Your task to perform on an android device: turn on bluetooth scan Image 0: 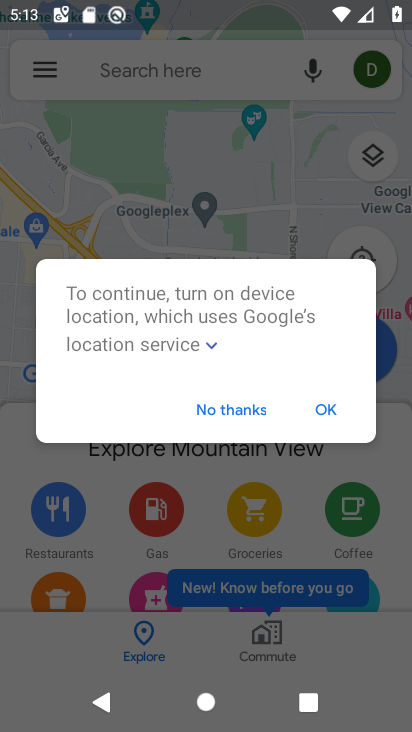
Step 0: press home button
Your task to perform on an android device: turn on bluetooth scan Image 1: 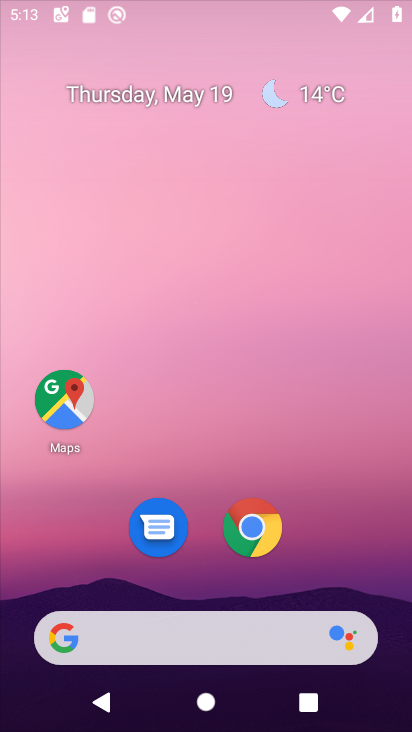
Step 1: drag from (312, 431) to (278, 54)
Your task to perform on an android device: turn on bluetooth scan Image 2: 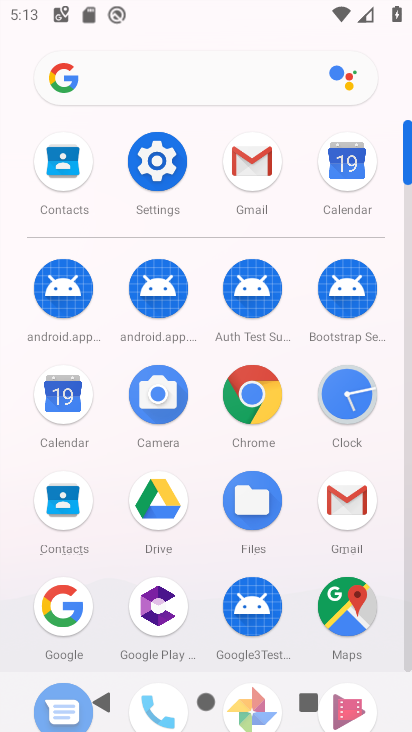
Step 2: click (159, 153)
Your task to perform on an android device: turn on bluetooth scan Image 3: 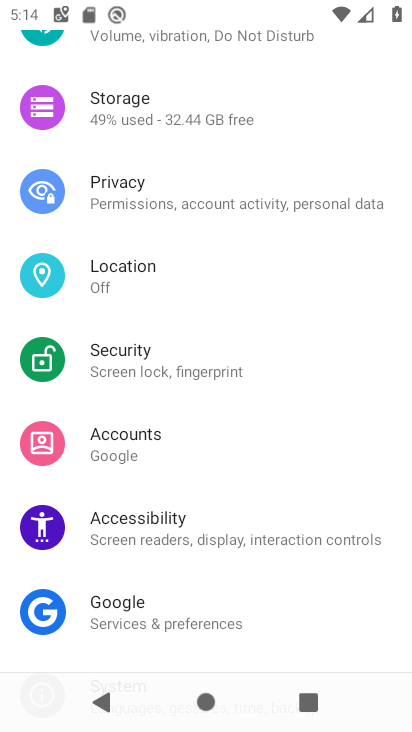
Step 3: drag from (236, 150) to (188, 573)
Your task to perform on an android device: turn on bluetooth scan Image 4: 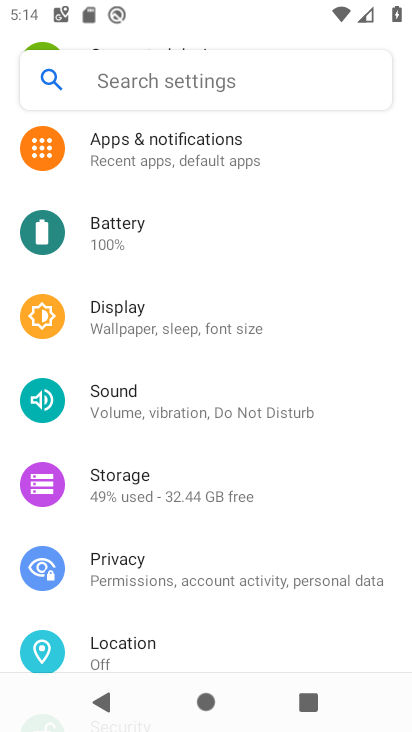
Step 4: click (209, 653)
Your task to perform on an android device: turn on bluetooth scan Image 5: 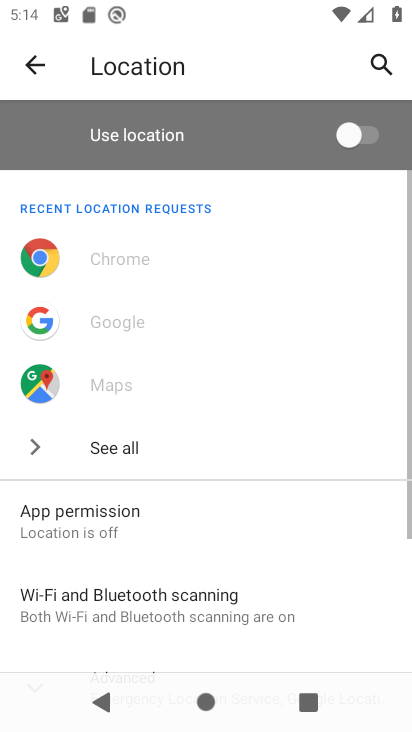
Step 5: click (248, 607)
Your task to perform on an android device: turn on bluetooth scan Image 6: 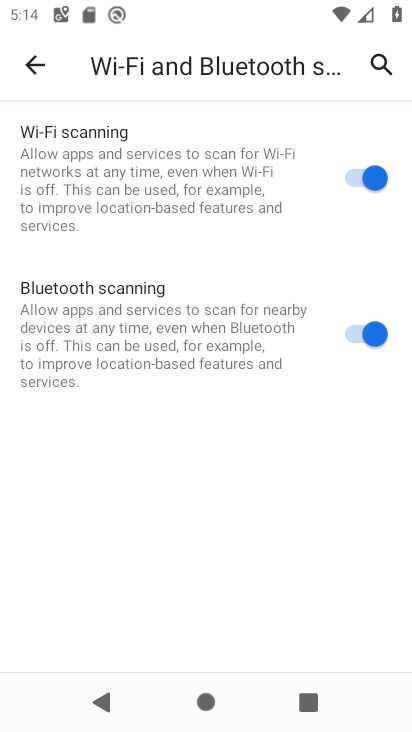
Step 6: task complete